Your task to perform on an android device: Go to location settings Image 0: 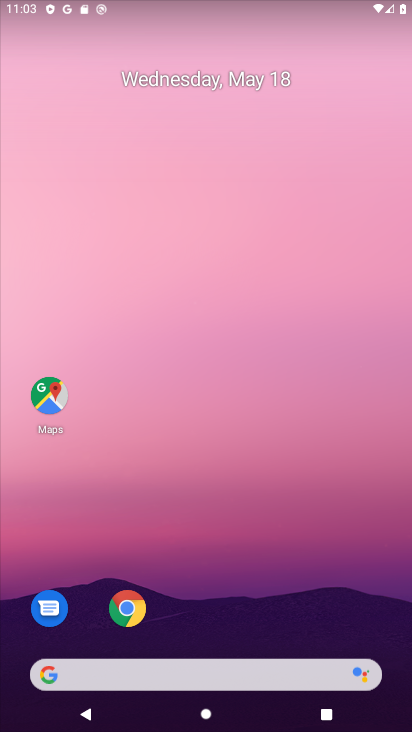
Step 0: drag from (224, 626) to (179, 118)
Your task to perform on an android device: Go to location settings Image 1: 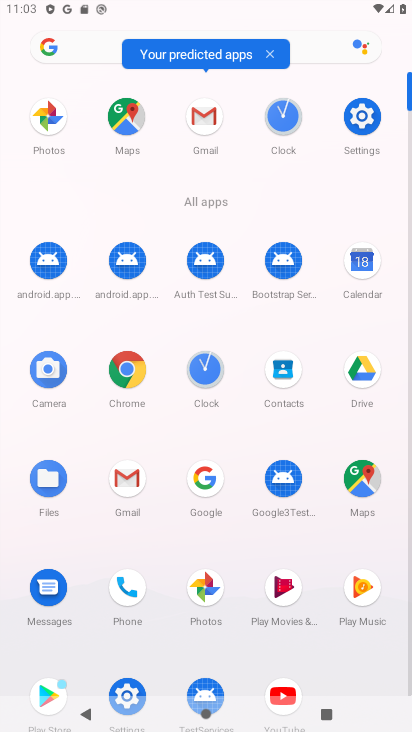
Step 1: click (362, 122)
Your task to perform on an android device: Go to location settings Image 2: 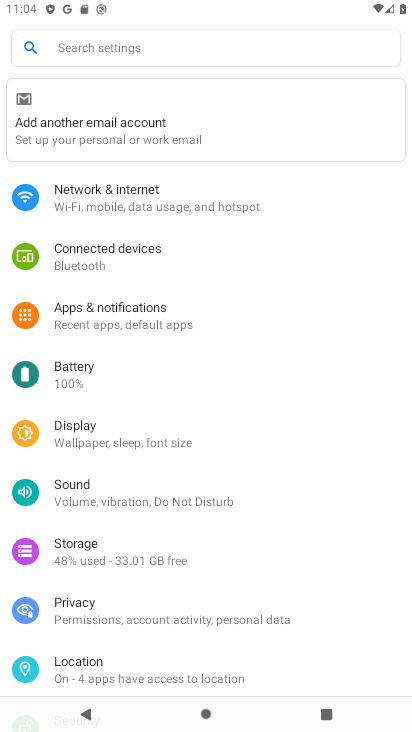
Step 2: click (102, 663)
Your task to perform on an android device: Go to location settings Image 3: 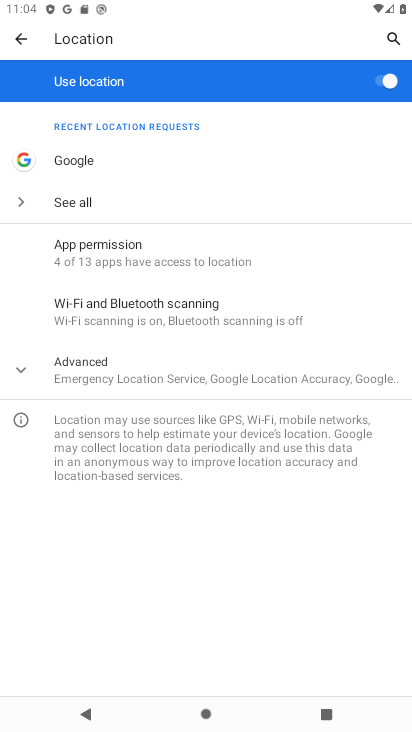
Step 3: click (89, 370)
Your task to perform on an android device: Go to location settings Image 4: 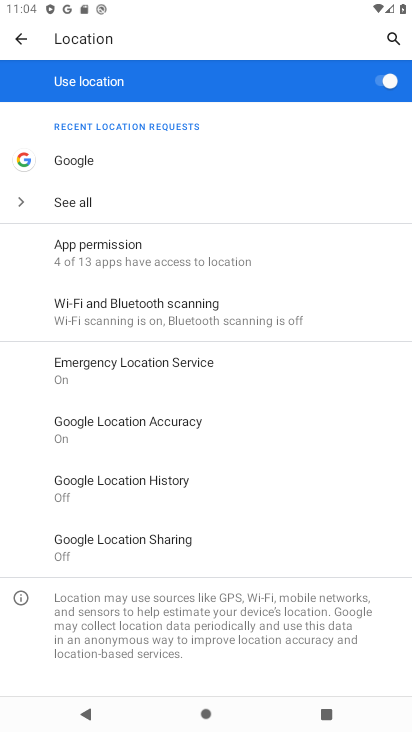
Step 4: task complete